Your task to perform on an android device: delete a single message in the gmail app Image 0: 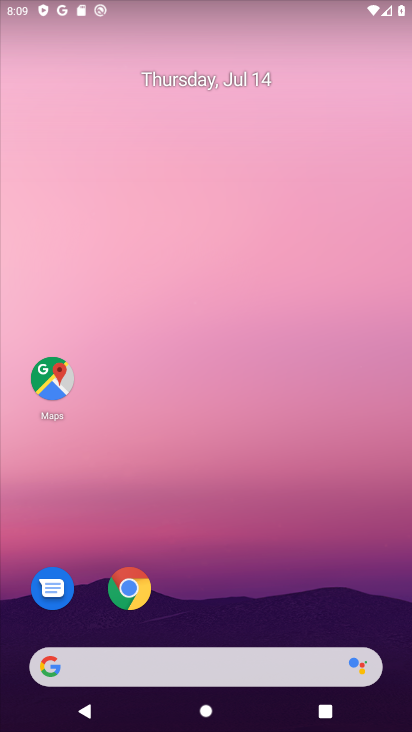
Step 0: drag from (233, 648) to (229, 286)
Your task to perform on an android device: delete a single message in the gmail app Image 1: 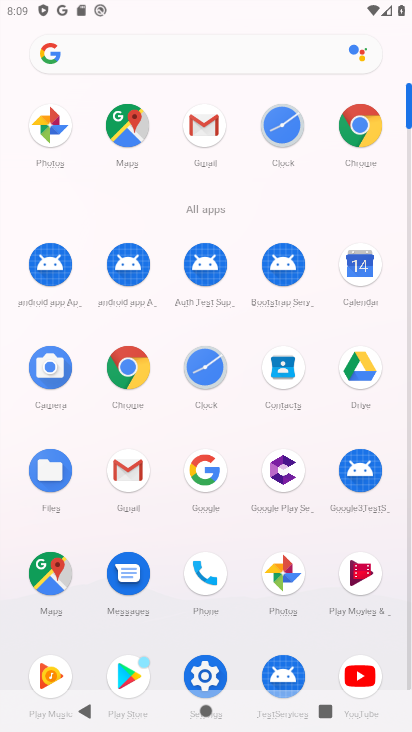
Step 1: click (131, 476)
Your task to perform on an android device: delete a single message in the gmail app Image 2: 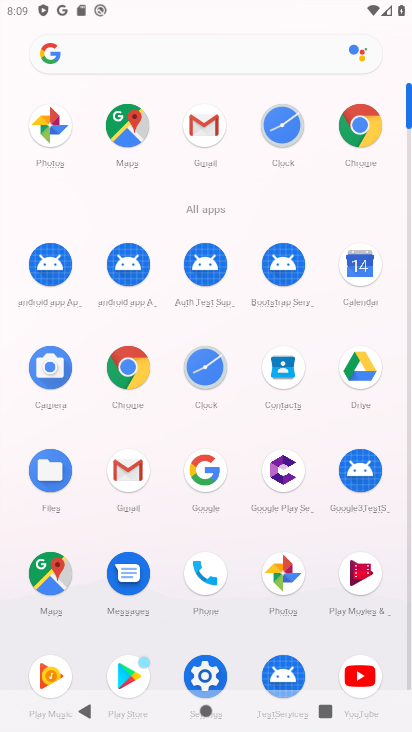
Step 2: click (129, 475)
Your task to perform on an android device: delete a single message in the gmail app Image 3: 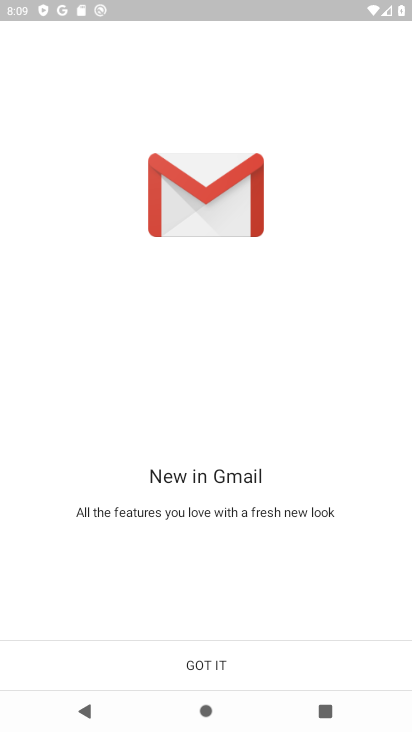
Step 3: click (206, 658)
Your task to perform on an android device: delete a single message in the gmail app Image 4: 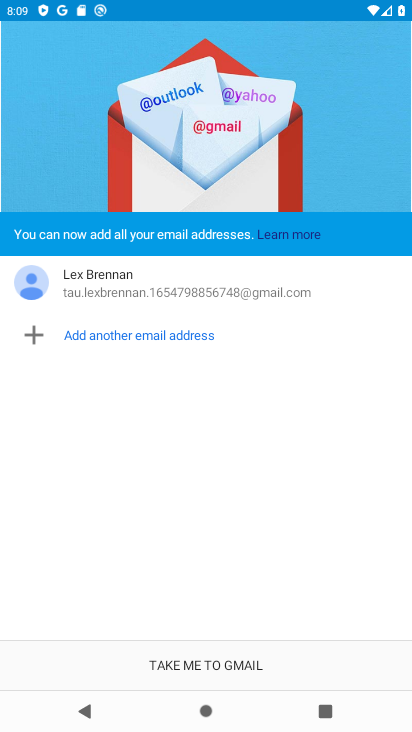
Step 4: click (212, 664)
Your task to perform on an android device: delete a single message in the gmail app Image 5: 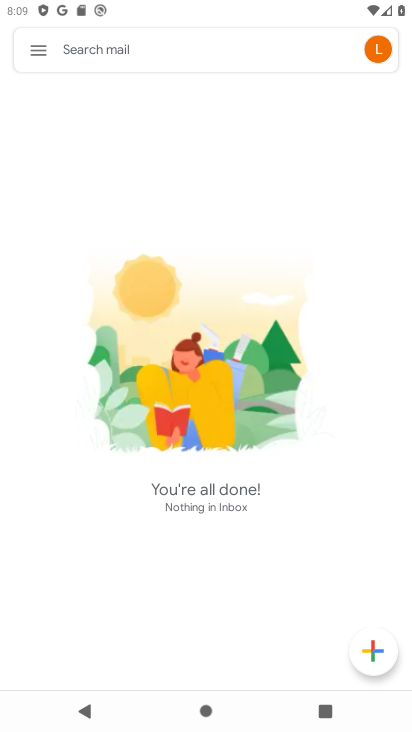
Step 5: click (38, 52)
Your task to perform on an android device: delete a single message in the gmail app Image 6: 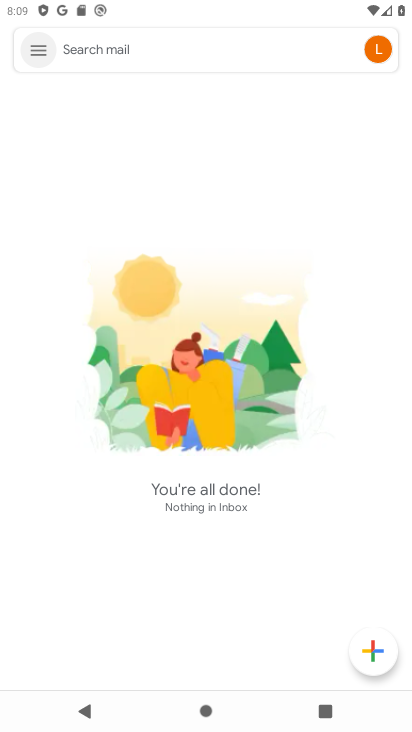
Step 6: click (32, 61)
Your task to perform on an android device: delete a single message in the gmail app Image 7: 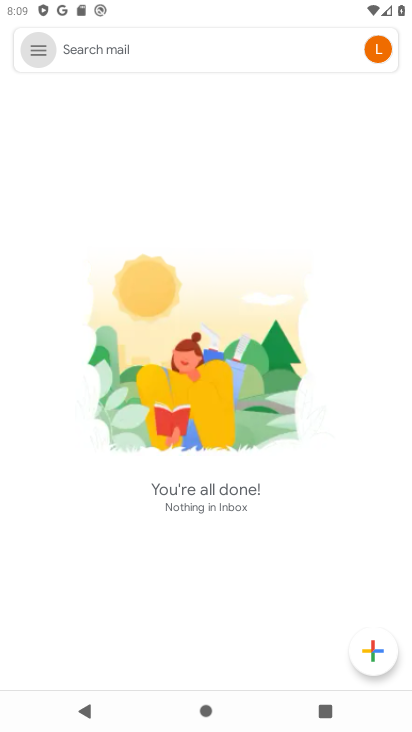
Step 7: click (37, 54)
Your task to perform on an android device: delete a single message in the gmail app Image 8: 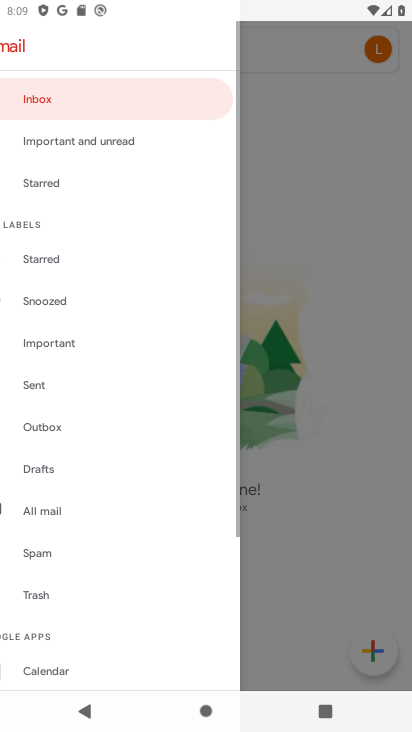
Step 8: click (38, 52)
Your task to perform on an android device: delete a single message in the gmail app Image 9: 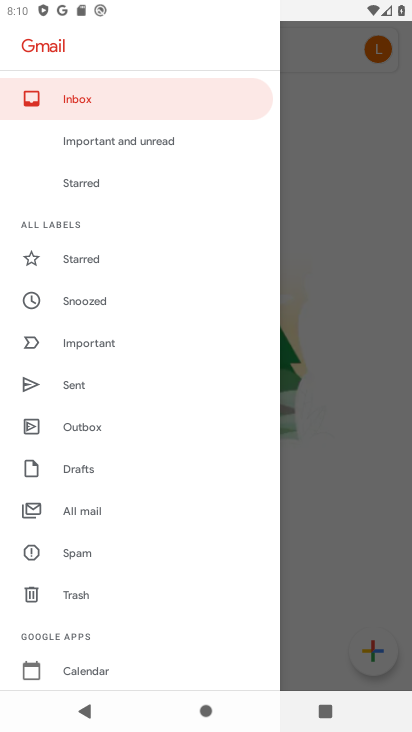
Step 9: click (82, 503)
Your task to perform on an android device: delete a single message in the gmail app Image 10: 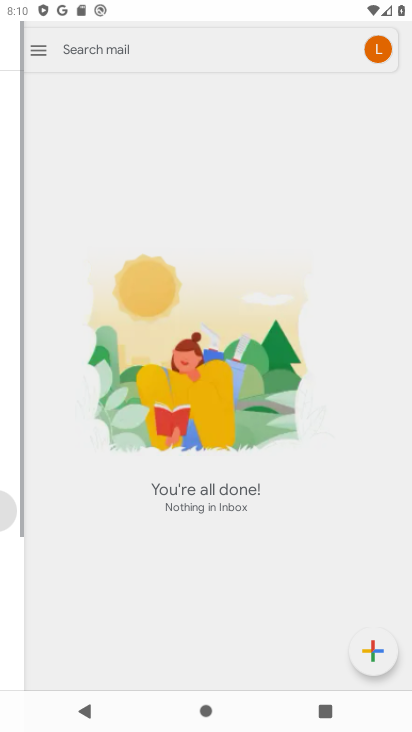
Step 10: click (81, 502)
Your task to perform on an android device: delete a single message in the gmail app Image 11: 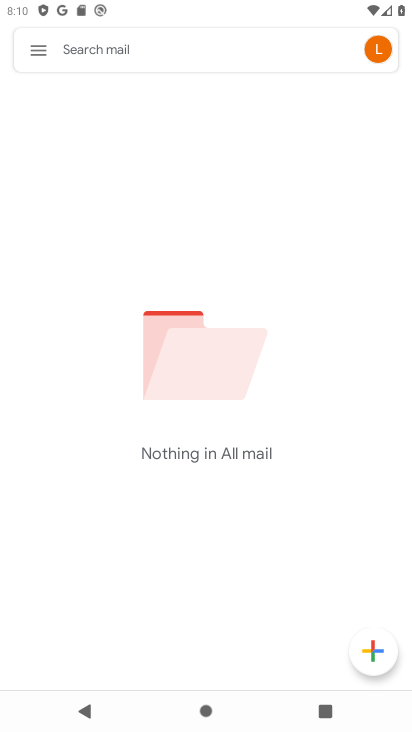
Step 11: task complete